Your task to perform on an android device: Show me recent news Image 0: 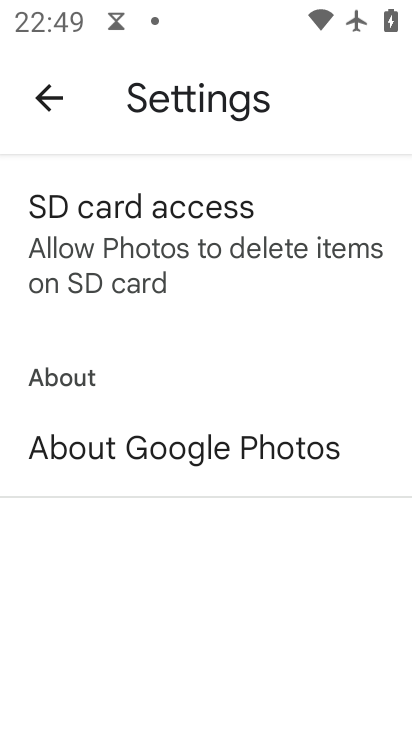
Step 0: press home button
Your task to perform on an android device: Show me recent news Image 1: 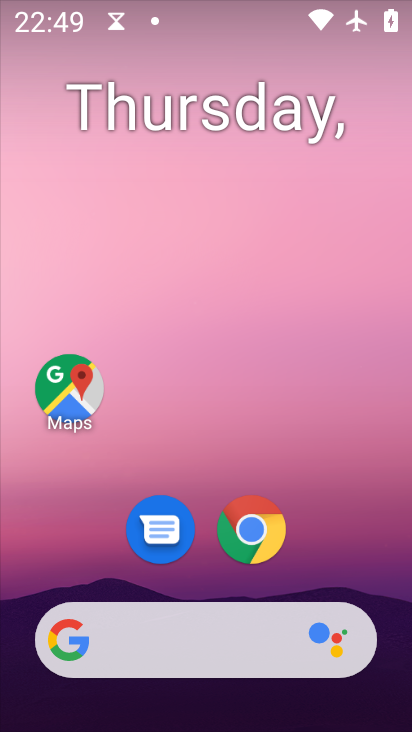
Step 1: click (141, 649)
Your task to perform on an android device: Show me recent news Image 2: 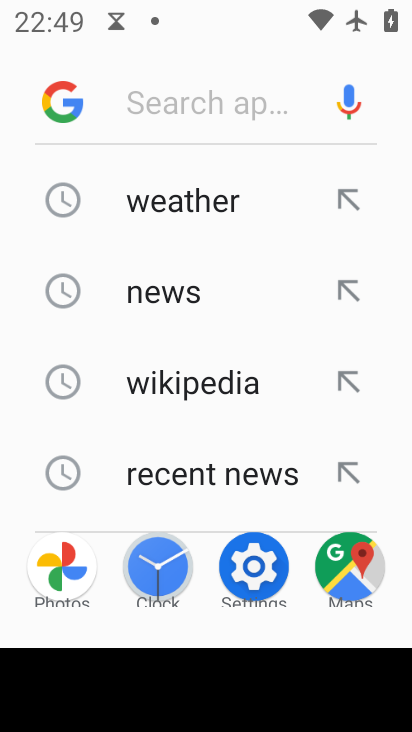
Step 2: type "recent news"
Your task to perform on an android device: Show me recent news Image 3: 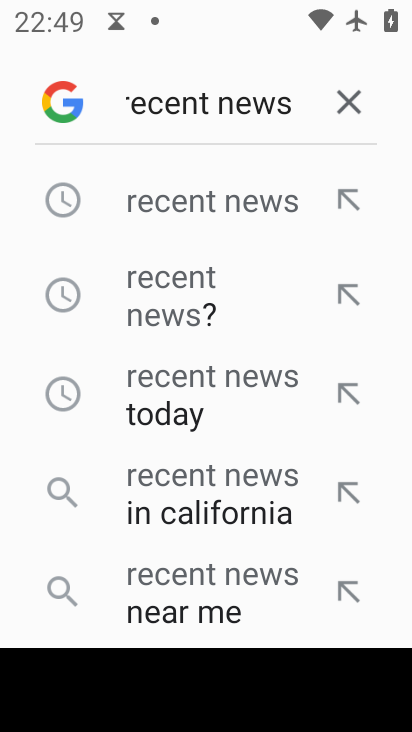
Step 3: click (174, 188)
Your task to perform on an android device: Show me recent news Image 4: 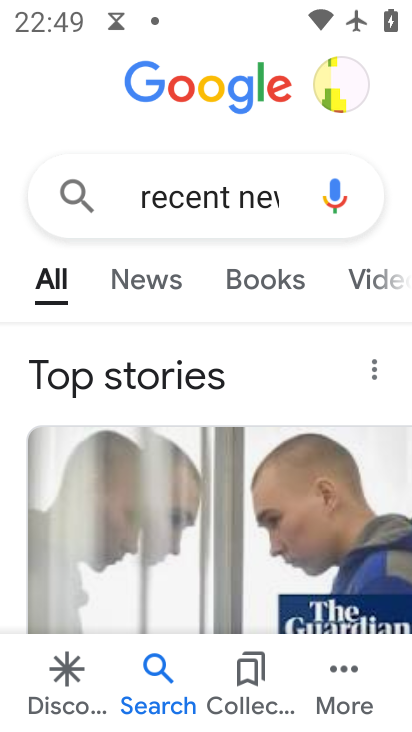
Step 4: click (158, 272)
Your task to perform on an android device: Show me recent news Image 5: 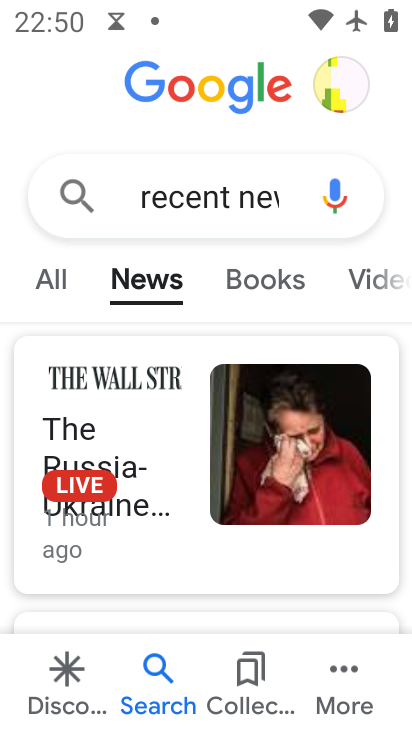
Step 5: task complete